Your task to perform on an android device: install app "NewsBreak: Local News & Alerts" Image 0: 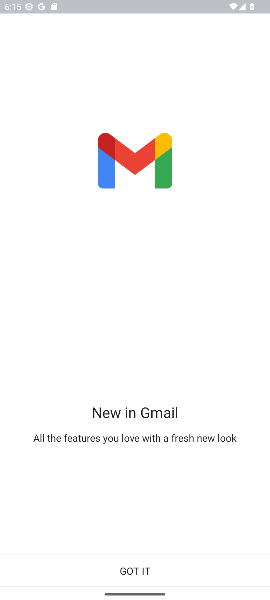
Step 0: press home button
Your task to perform on an android device: install app "NewsBreak: Local News & Alerts" Image 1: 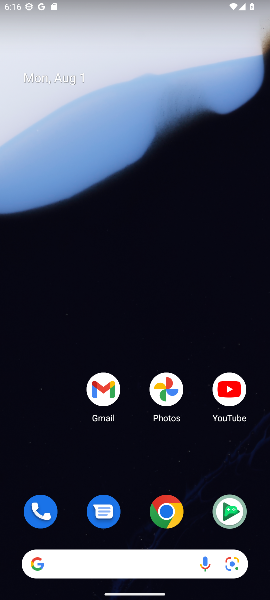
Step 1: drag from (155, 338) to (139, 125)
Your task to perform on an android device: install app "NewsBreak: Local News & Alerts" Image 2: 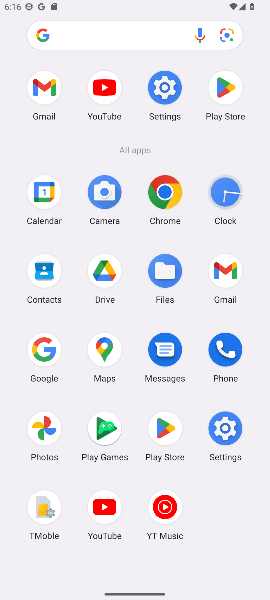
Step 2: click (172, 433)
Your task to perform on an android device: install app "NewsBreak: Local News & Alerts" Image 3: 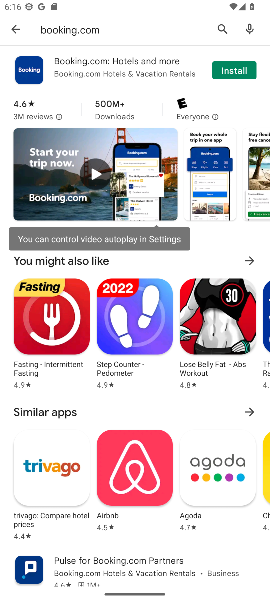
Step 3: click (227, 24)
Your task to perform on an android device: install app "NewsBreak: Local News & Alerts" Image 4: 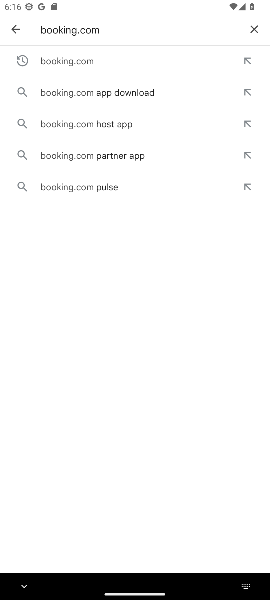
Step 4: click (255, 32)
Your task to perform on an android device: install app "NewsBreak: Local News & Alerts" Image 5: 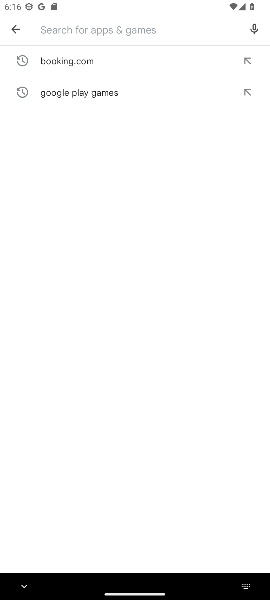
Step 5: type "newsbreak"
Your task to perform on an android device: install app "NewsBreak: Local News & Alerts" Image 6: 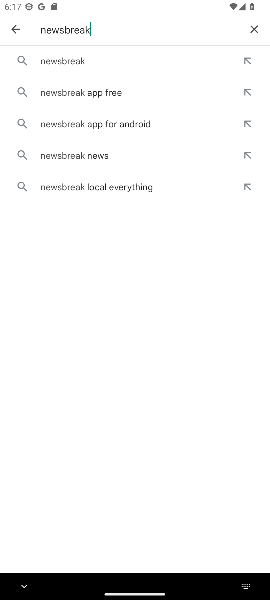
Step 6: click (143, 55)
Your task to perform on an android device: install app "NewsBreak: Local News & Alerts" Image 7: 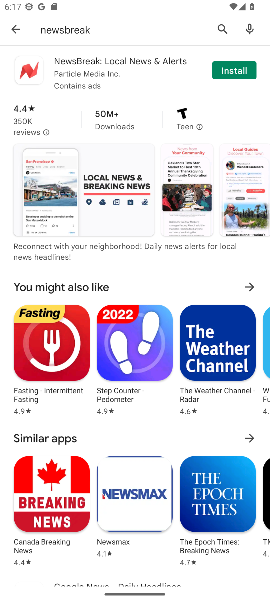
Step 7: click (238, 68)
Your task to perform on an android device: install app "NewsBreak: Local News & Alerts" Image 8: 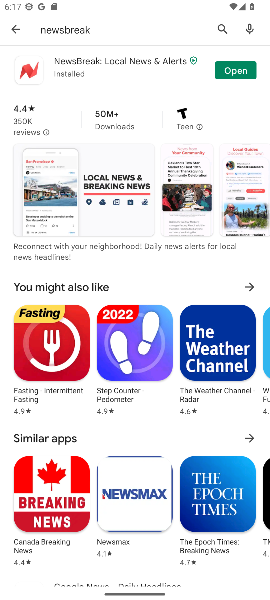
Step 8: task complete